Your task to perform on an android device: turn on data saver in the chrome app Image 0: 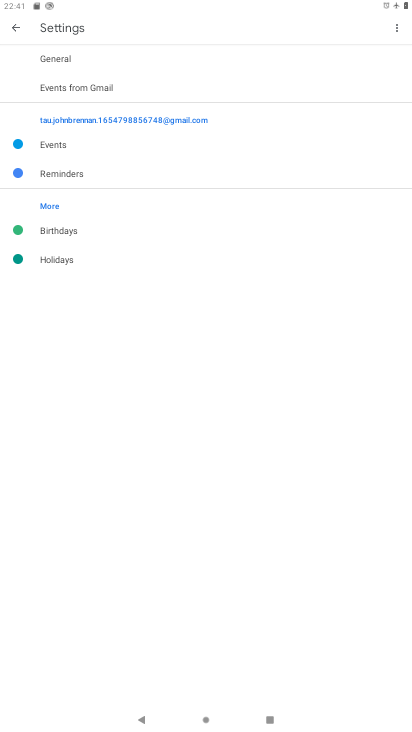
Step 0: press home button
Your task to perform on an android device: turn on data saver in the chrome app Image 1: 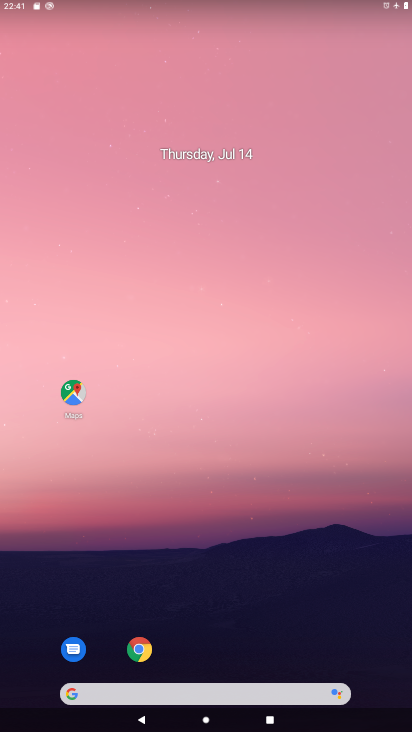
Step 1: click (139, 647)
Your task to perform on an android device: turn on data saver in the chrome app Image 2: 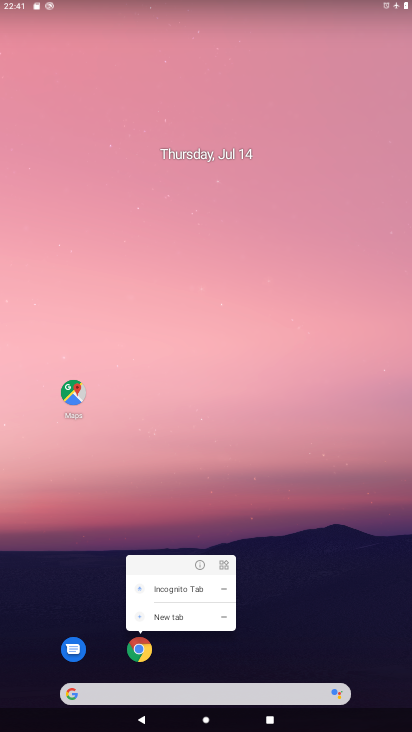
Step 2: click (139, 647)
Your task to perform on an android device: turn on data saver in the chrome app Image 3: 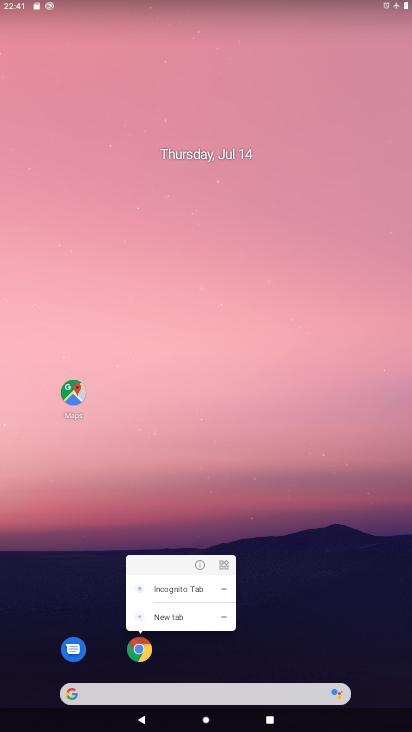
Step 3: click (139, 647)
Your task to perform on an android device: turn on data saver in the chrome app Image 4: 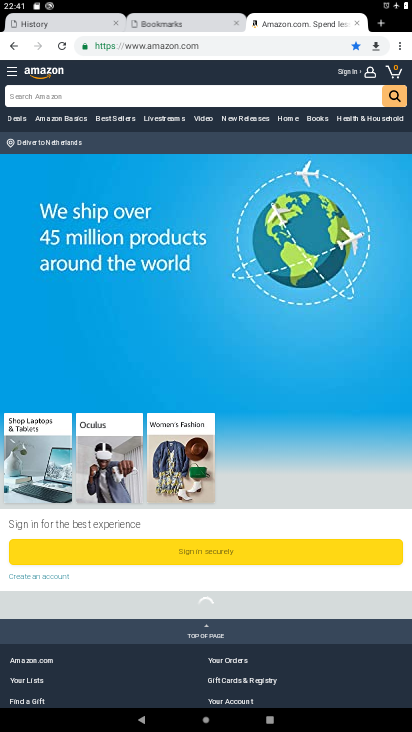
Step 4: click (405, 37)
Your task to perform on an android device: turn on data saver in the chrome app Image 5: 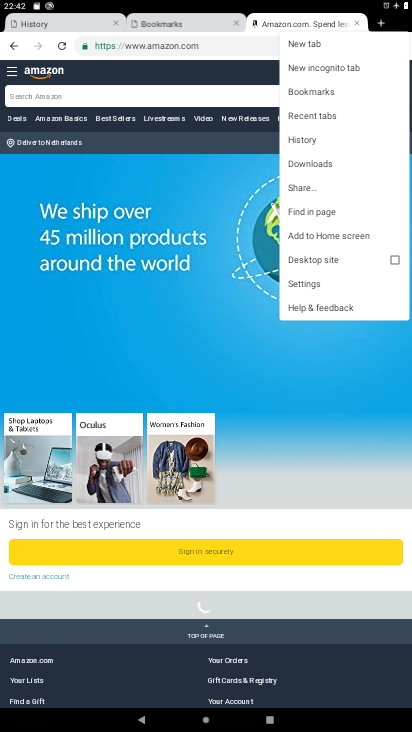
Step 5: click (313, 280)
Your task to perform on an android device: turn on data saver in the chrome app Image 6: 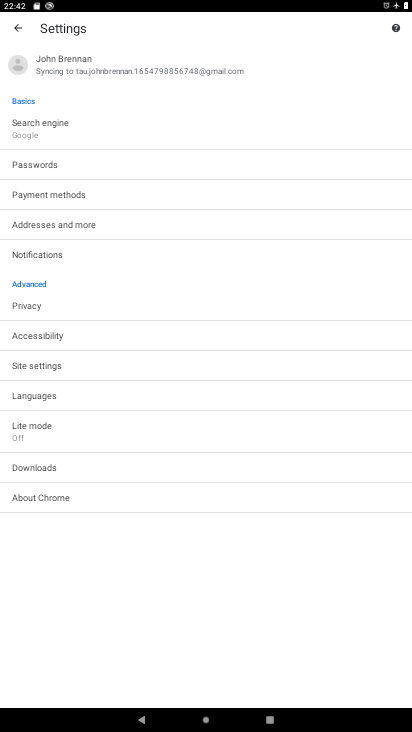
Step 6: click (86, 420)
Your task to perform on an android device: turn on data saver in the chrome app Image 7: 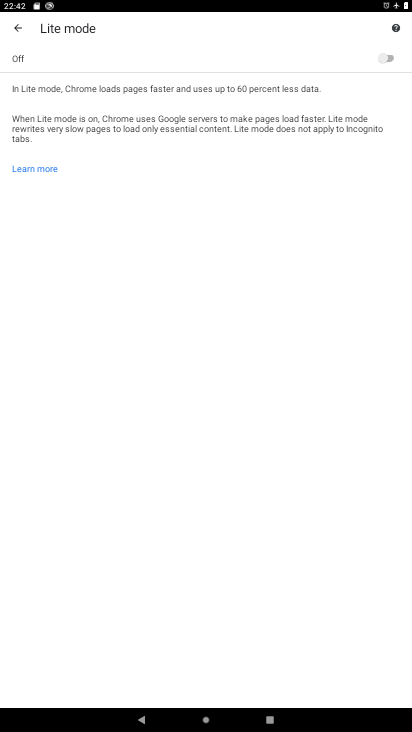
Step 7: click (389, 61)
Your task to perform on an android device: turn on data saver in the chrome app Image 8: 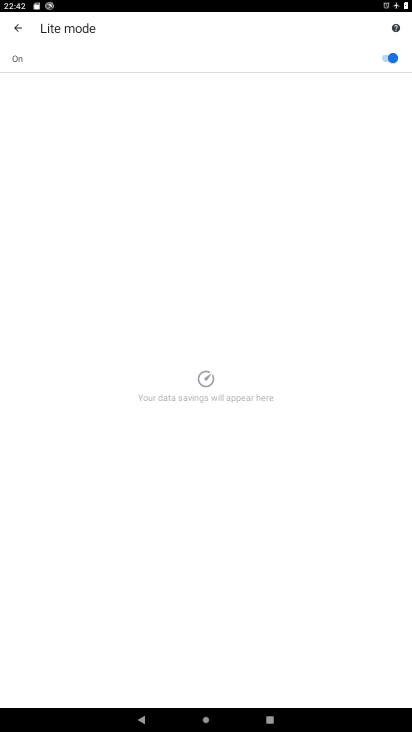
Step 8: task complete